Your task to perform on an android device: find snoozed emails in the gmail app Image 0: 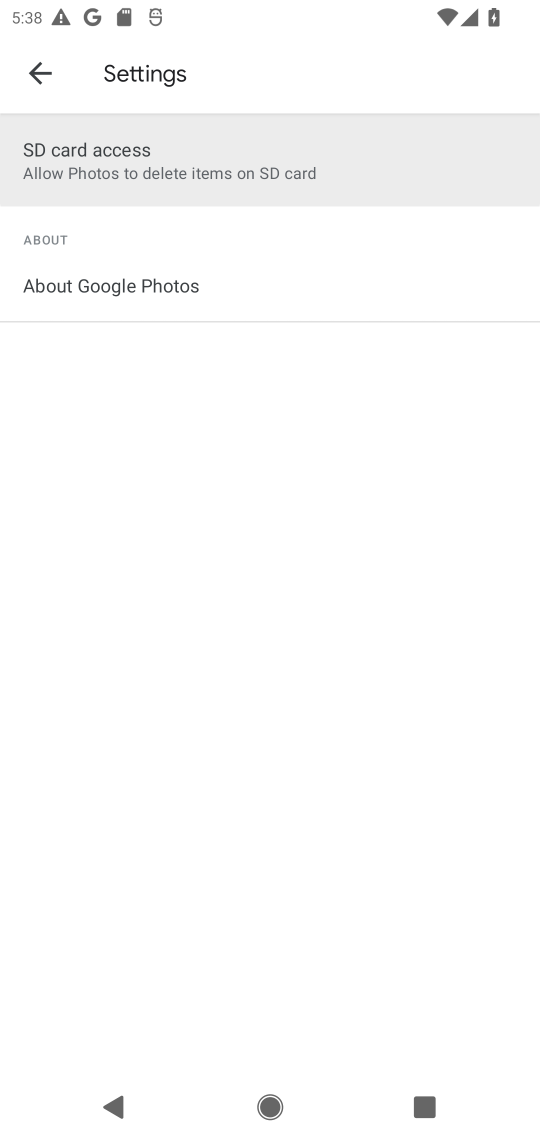
Step 0: press home button
Your task to perform on an android device: find snoozed emails in the gmail app Image 1: 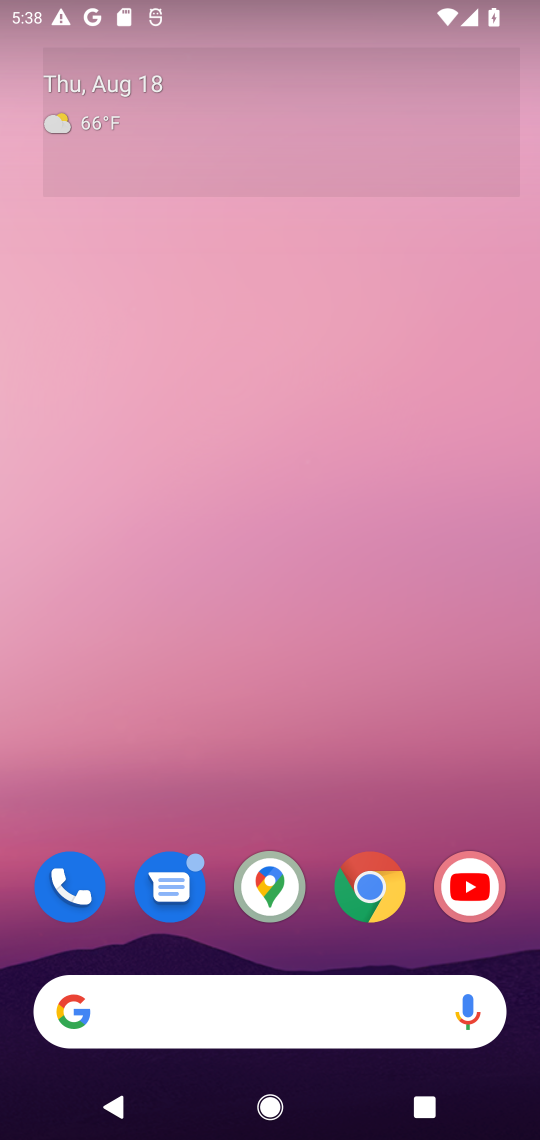
Step 1: drag from (239, 795) to (376, 34)
Your task to perform on an android device: find snoozed emails in the gmail app Image 2: 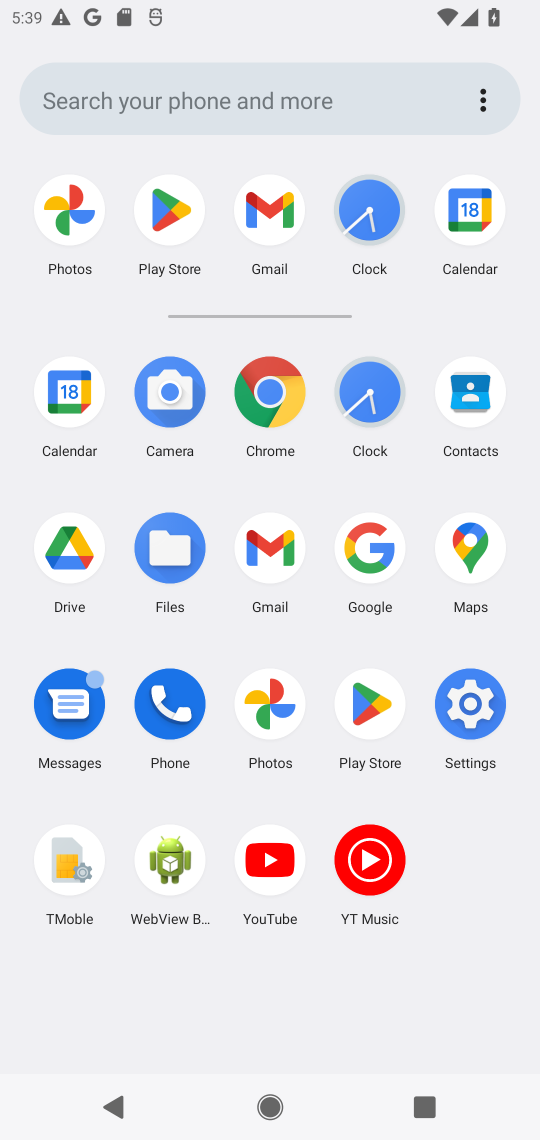
Step 2: click (283, 555)
Your task to perform on an android device: find snoozed emails in the gmail app Image 3: 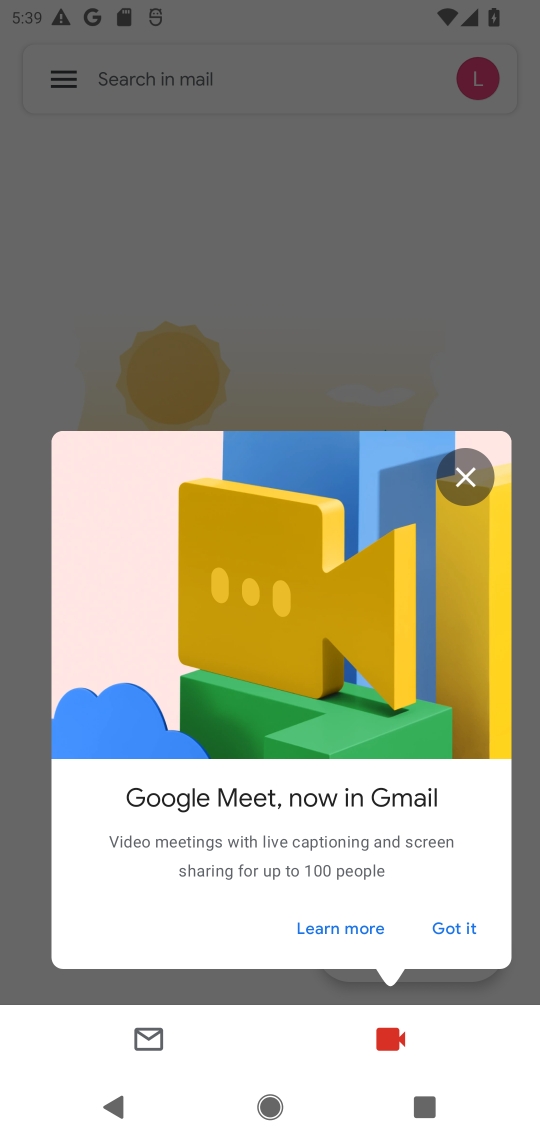
Step 3: task complete